Your task to perform on an android device: Go to accessibility settings Image 0: 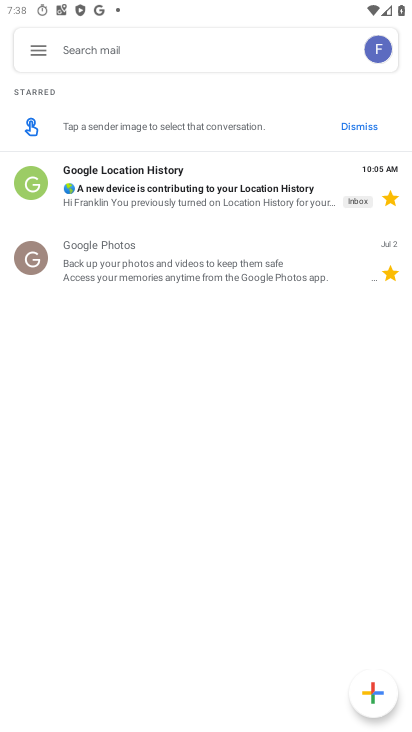
Step 0: press home button
Your task to perform on an android device: Go to accessibility settings Image 1: 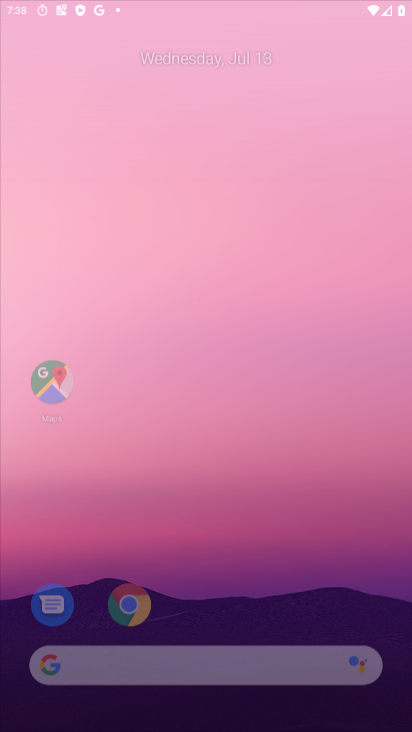
Step 1: drag from (352, 651) to (218, 0)
Your task to perform on an android device: Go to accessibility settings Image 2: 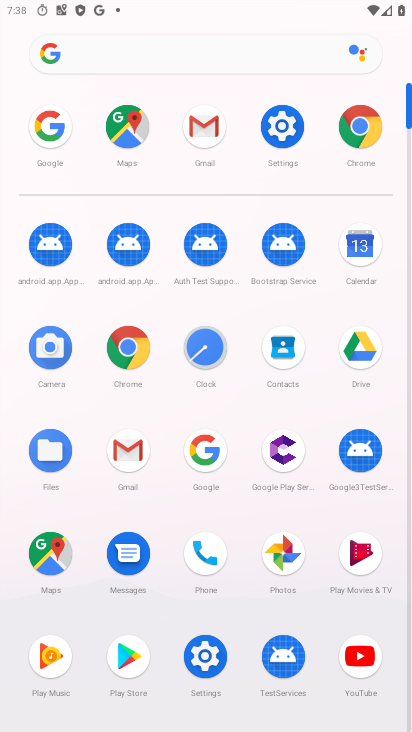
Step 2: click (279, 124)
Your task to perform on an android device: Go to accessibility settings Image 3: 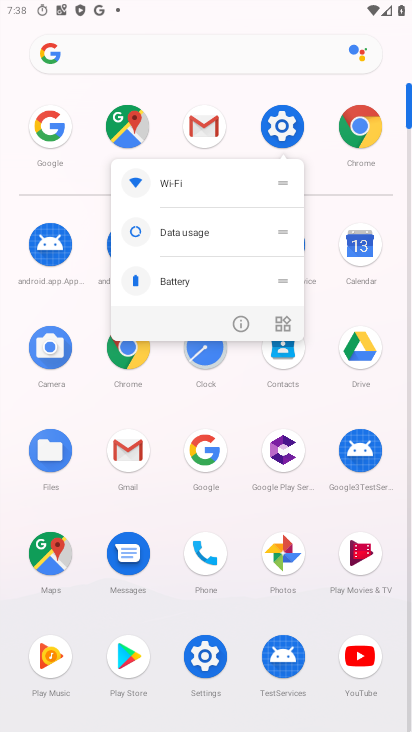
Step 3: click (279, 124)
Your task to perform on an android device: Go to accessibility settings Image 4: 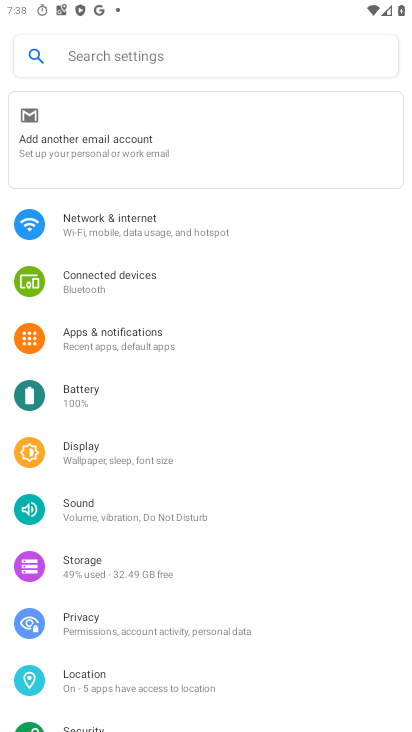
Step 4: drag from (108, 681) to (143, 191)
Your task to perform on an android device: Go to accessibility settings Image 5: 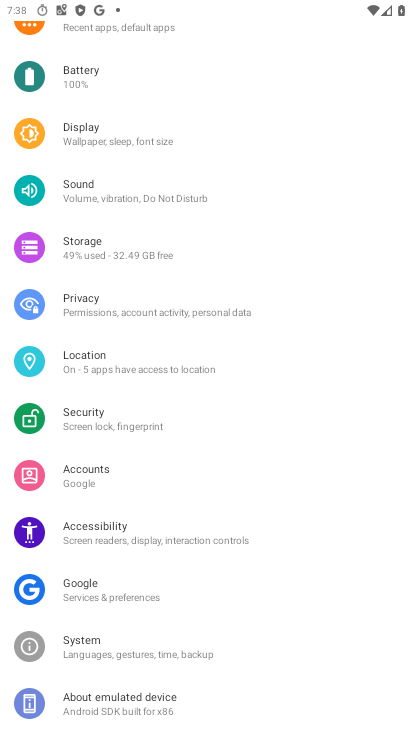
Step 5: click (95, 544)
Your task to perform on an android device: Go to accessibility settings Image 6: 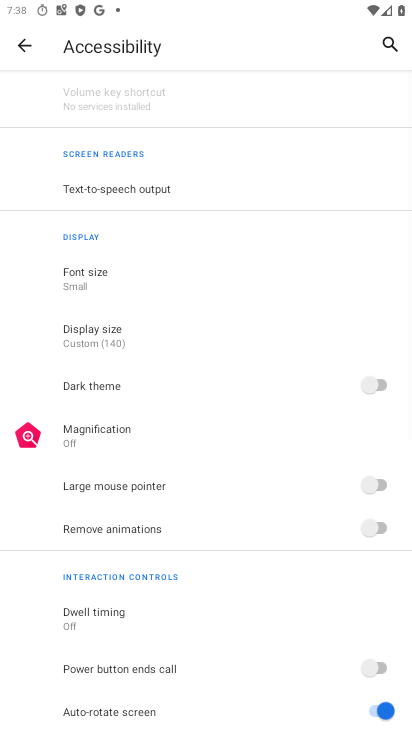
Step 6: task complete